Your task to perform on an android device: Add usb-c to usb-a to the cart on ebay.com Image 0: 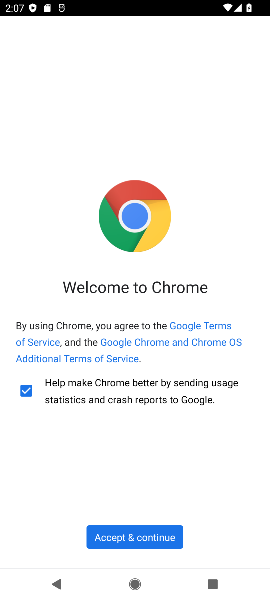
Step 0: click (108, 527)
Your task to perform on an android device: Add usb-c to usb-a to the cart on ebay.com Image 1: 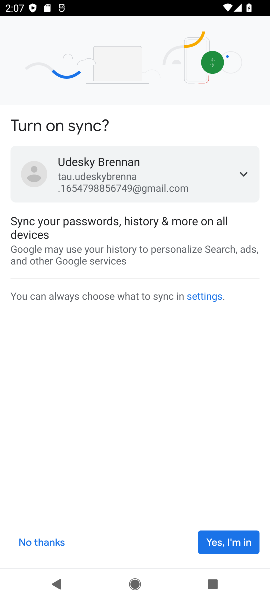
Step 1: click (220, 554)
Your task to perform on an android device: Add usb-c to usb-a to the cart on ebay.com Image 2: 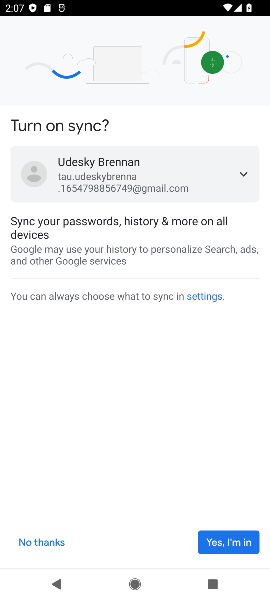
Step 2: click (220, 546)
Your task to perform on an android device: Add usb-c to usb-a to the cart on ebay.com Image 3: 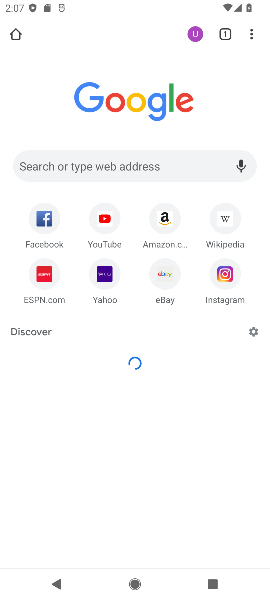
Step 3: click (103, 169)
Your task to perform on an android device: Add usb-c to usb-a to the cart on ebay.com Image 4: 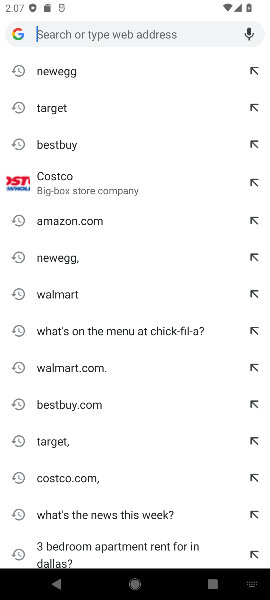
Step 4: type "ebay.com"
Your task to perform on an android device: Add usb-c to usb-a to the cart on ebay.com Image 5: 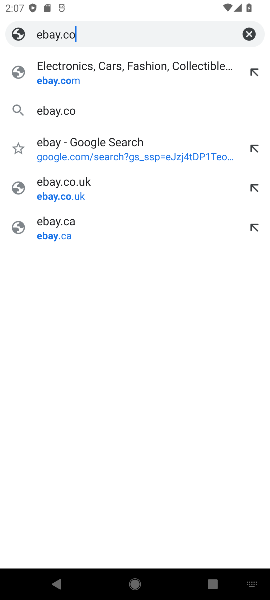
Step 5: type ""
Your task to perform on an android device: Add usb-c to usb-a to the cart on ebay.com Image 6: 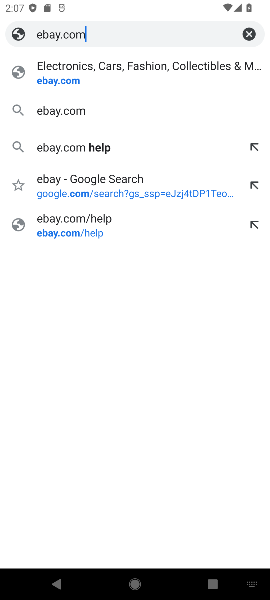
Step 6: click (123, 62)
Your task to perform on an android device: Add usb-c to usb-a to the cart on ebay.com Image 7: 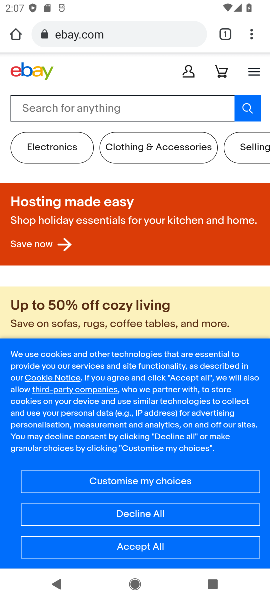
Step 7: click (76, 111)
Your task to perform on an android device: Add usb-c to usb-a to the cart on ebay.com Image 8: 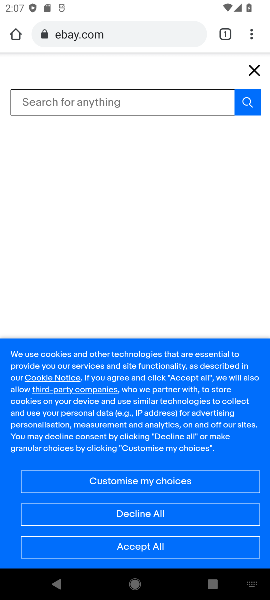
Step 8: click (167, 549)
Your task to perform on an android device: Add usb-c to usb-a to the cart on ebay.com Image 9: 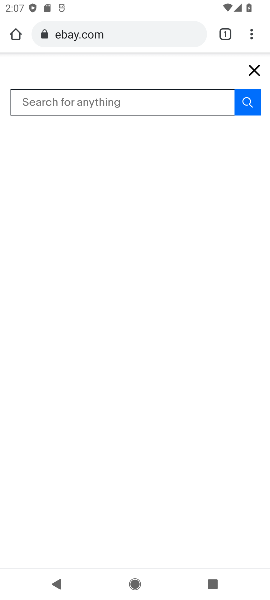
Step 9: type "usb-c to usb-a"
Your task to perform on an android device: Add usb-c to usb-a to the cart on ebay.com Image 10: 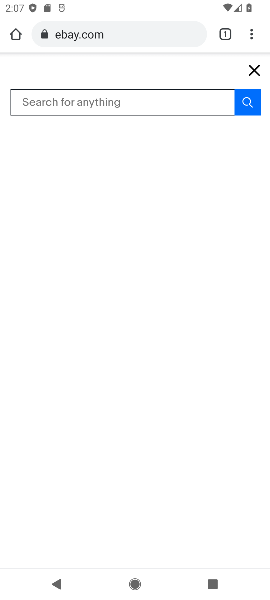
Step 10: click (117, 103)
Your task to perform on an android device: Add usb-c to usb-a to the cart on ebay.com Image 11: 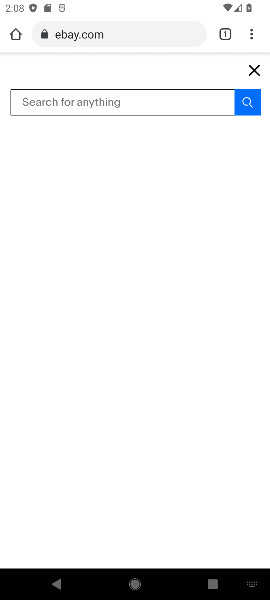
Step 11: type "usb-c to usb-a"
Your task to perform on an android device: Add usb-c to usb-a to the cart on ebay.com Image 12: 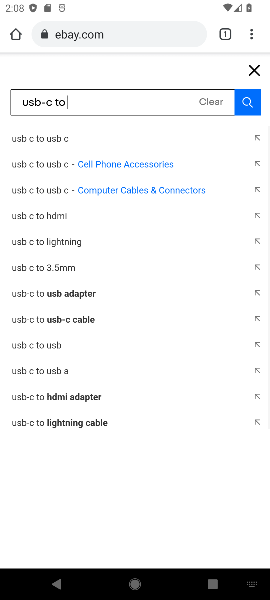
Step 12: type ""
Your task to perform on an android device: Add usb-c to usb-a to the cart on ebay.com Image 13: 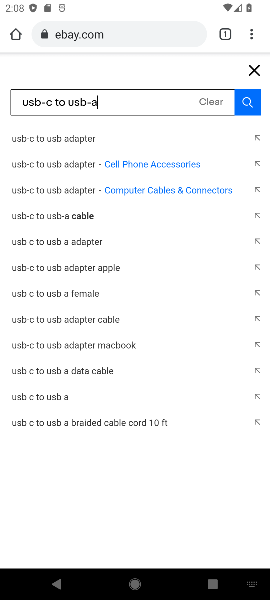
Step 13: click (251, 109)
Your task to perform on an android device: Add usb-c to usb-a to the cart on ebay.com Image 14: 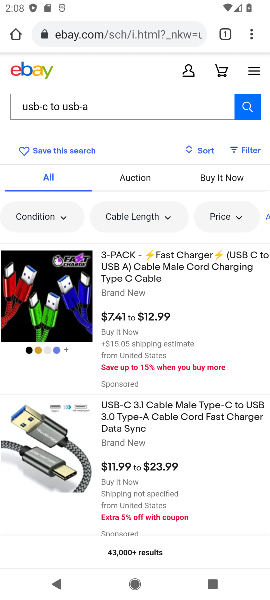
Step 14: click (201, 269)
Your task to perform on an android device: Add usb-c to usb-a to the cart on ebay.com Image 15: 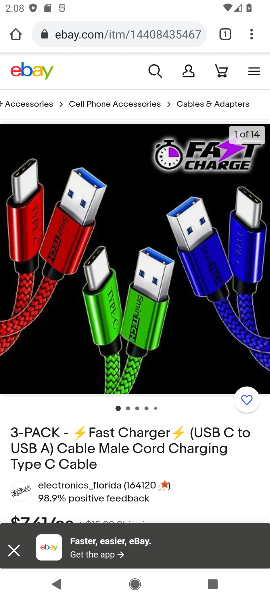
Step 15: drag from (143, 464) to (176, 275)
Your task to perform on an android device: Add usb-c to usb-a to the cart on ebay.com Image 16: 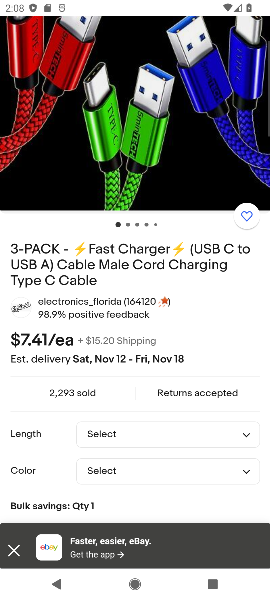
Step 16: drag from (118, 475) to (164, 302)
Your task to perform on an android device: Add usb-c to usb-a to the cart on ebay.com Image 17: 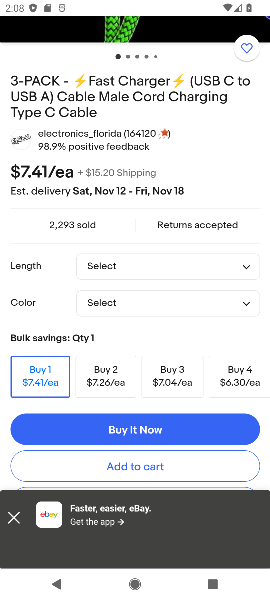
Step 17: click (17, 551)
Your task to perform on an android device: Add usb-c to usb-a to the cart on ebay.com Image 18: 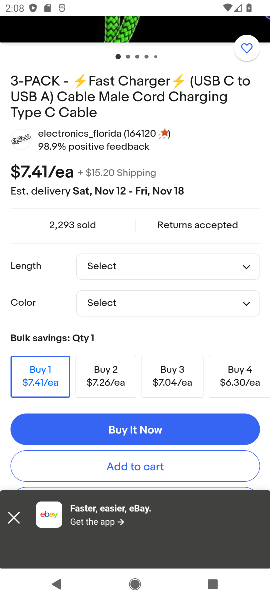
Step 18: click (97, 472)
Your task to perform on an android device: Add usb-c to usb-a to the cart on ebay.com Image 19: 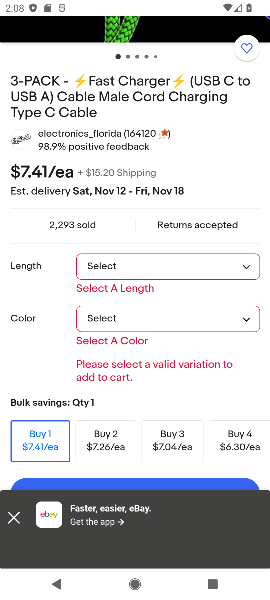
Step 19: drag from (174, 389) to (199, 153)
Your task to perform on an android device: Add usb-c to usb-a to the cart on ebay.com Image 20: 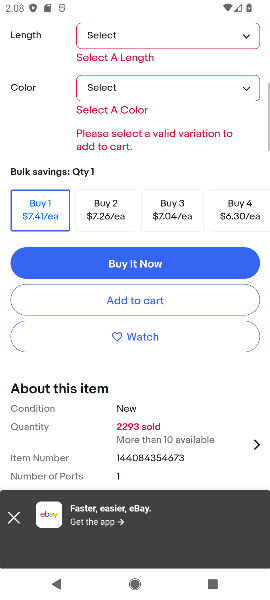
Step 20: drag from (144, 353) to (189, 131)
Your task to perform on an android device: Add usb-c to usb-a to the cart on ebay.com Image 21: 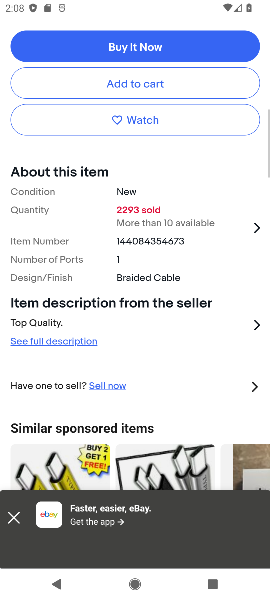
Step 21: click (4, 520)
Your task to perform on an android device: Add usb-c to usb-a to the cart on ebay.com Image 22: 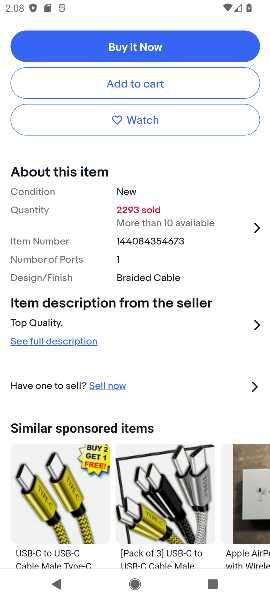
Step 22: drag from (132, 484) to (163, 244)
Your task to perform on an android device: Add usb-c to usb-a to the cart on ebay.com Image 23: 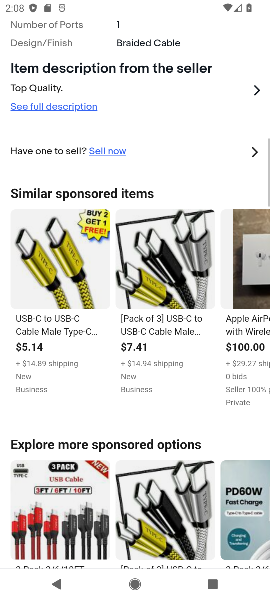
Step 23: click (156, 228)
Your task to perform on an android device: Add usb-c to usb-a to the cart on ebay.com Image 24: 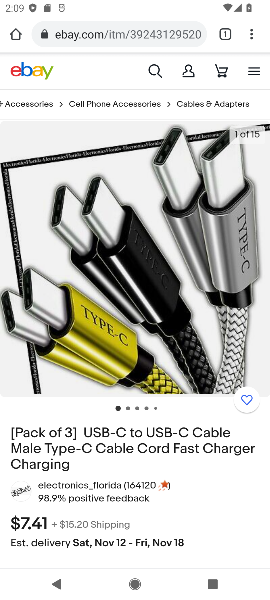
Step 24: drag from (113, 355) to (155, 107)
Your task to perform on an android device: Add usb-c to usb-a to the cart on ebay.com Image 25: 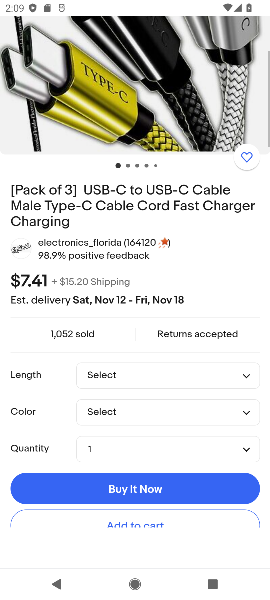
Step 25: drag from (131, 418) to (188, 145)
Your task to perform on an android device: Add usb-c to usb-a to the cart on ebay.com Image 26: 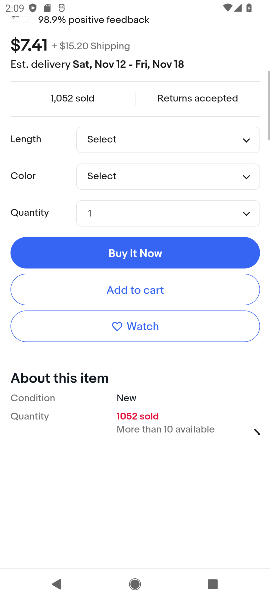
Step 26: drag from (177, 382) to (193, 148)
Your task to perform on an android device: Add usb-c to usb-a to the cart on ebay.com Image 27: 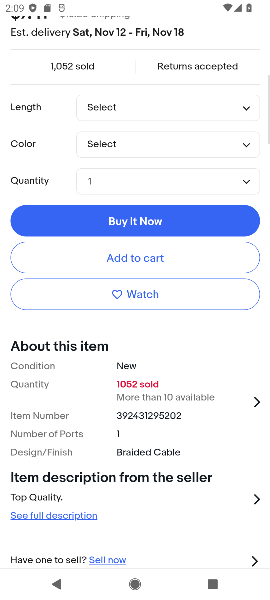
Step 27: drag from (165, 333) to (192, 171)
Your task to perform on an android device: Add usb-c to usb-a to the cart on ebay.com Image 28: 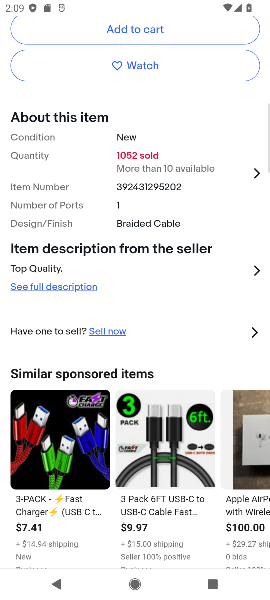
Step 28: drag from (135, 322) to (159, 174)
Your task to perform on an android device: Add usb-c to usb-a to the cart on ebay.com Image 29: 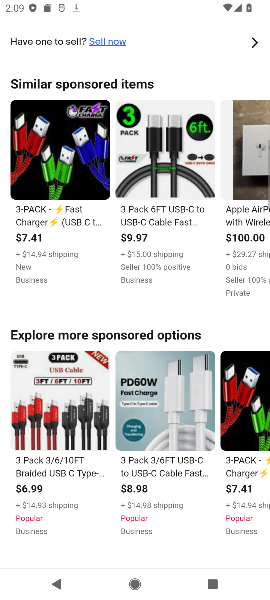
Step 29: drag from (152, 219) to (171, 159)
Your task to perform on an android device: Add usb-c to usb-a to the cart on ebay.com Image 30: 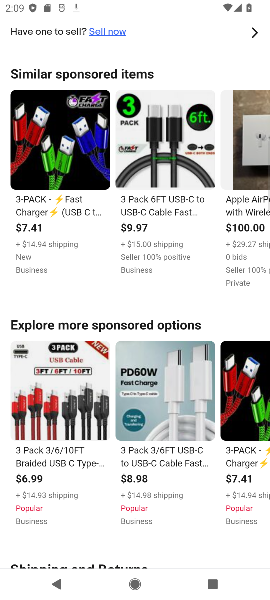
Step 30: drag from (144, 243) to (172, 166)
Your task to perform on an android device: Add usb-c to usb-a to the cart on ebay.com Image 31: 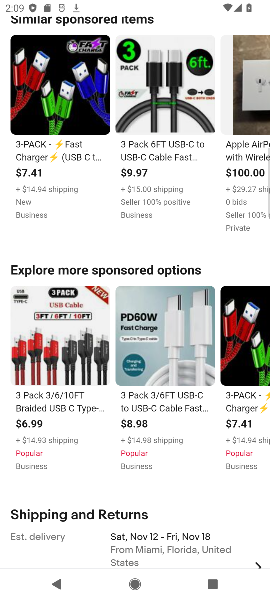
Step 31: drag from (137, 309) to (166, 169)
Your task to perform on an android device: Add usb-c to usb-a to the cart on ebay.com Image 32: 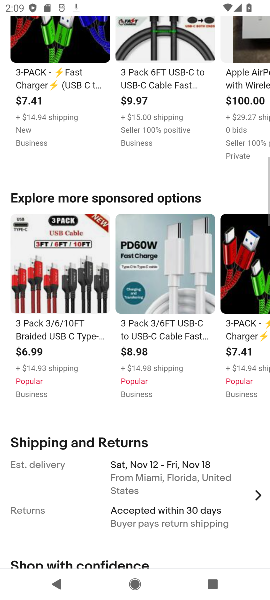
Step 32: drag from (141, 314) to (164, 228)
Your task to perform on an android device: Add usb-c to usb-a to the cart on ebay.com Image 33: 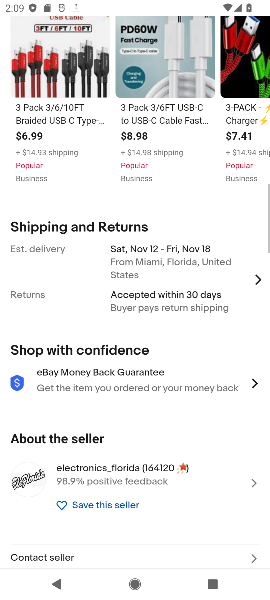
Step 33: drag from (166, 234) to (178, 184)
Your task to perform on an android device: Add usb-c to usb-a to the cart on ebay.com Image 34: 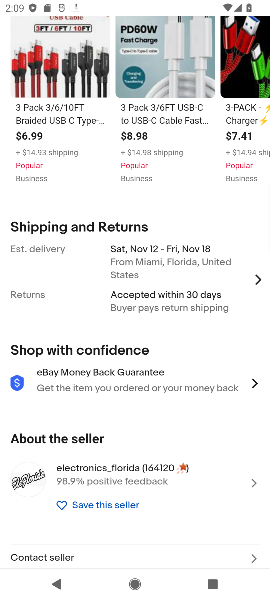
Step 34: drag from (177, 381) to (170, 191)
Your task to perform on an android device: Add usb-c to usb-a to the cart on ebay.com Image 35: 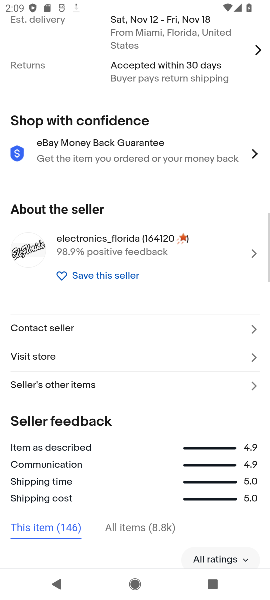
Step 35: click (149, 205)
Your task to perform on an android device: Add usb-c to usb-a to the cart on ebay.com Image 36: 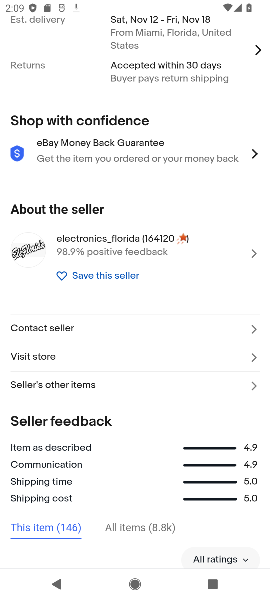
Step 36: task complete